Your task to perform on an android device: What's on my calendar tomorrow? Image 0: 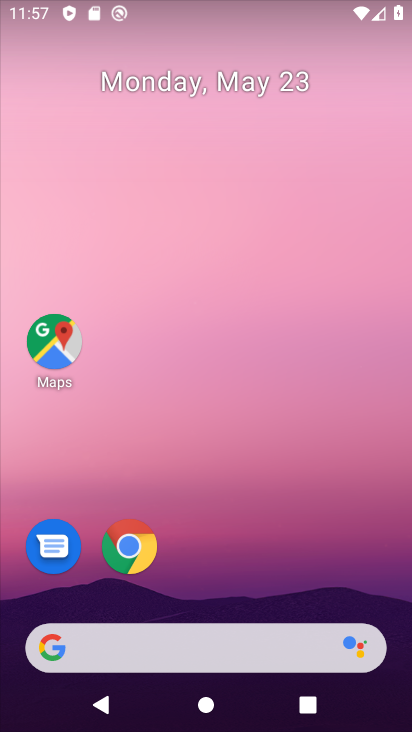
Step 0: drag from (229, 700) to (206, 48)
Your task to perform on an android device: What's on my calendar tomorrow? Image 1: 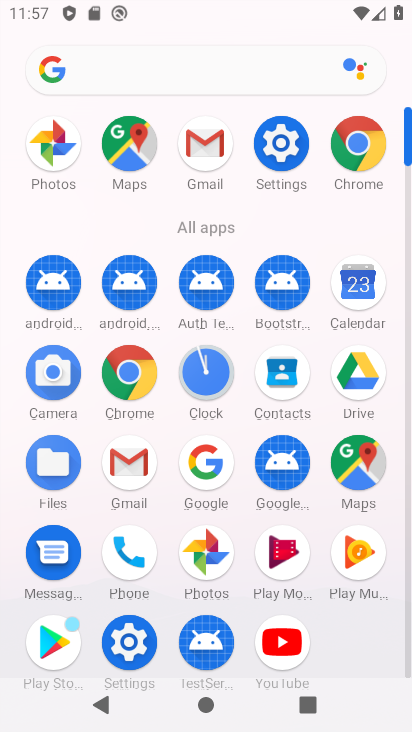
Step 1: click (375, 287)
Your task to perform on an android device: What's on my calendar tomorrow? Image 2: 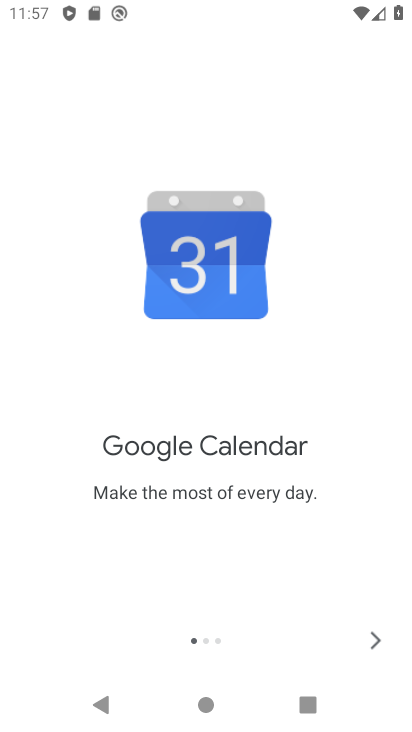
Step 2: click (377, 653)
Your task to perform on an android device: What's on my calendar tomorrow? Image 3: 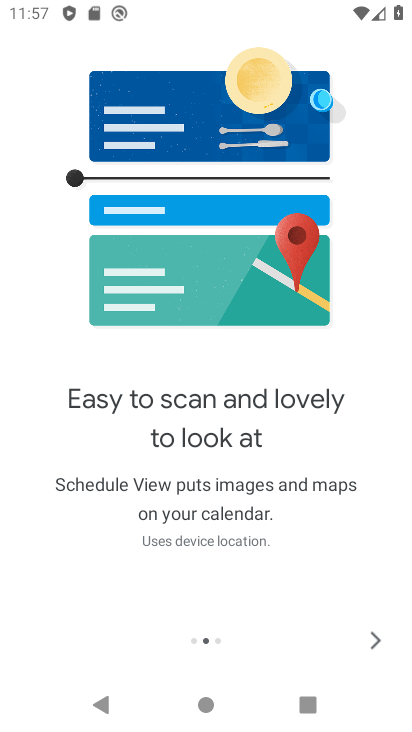
Step 3: click (377, 653)
Your task to perform on an android device: What's on my calendar tomorrow? Image 4: 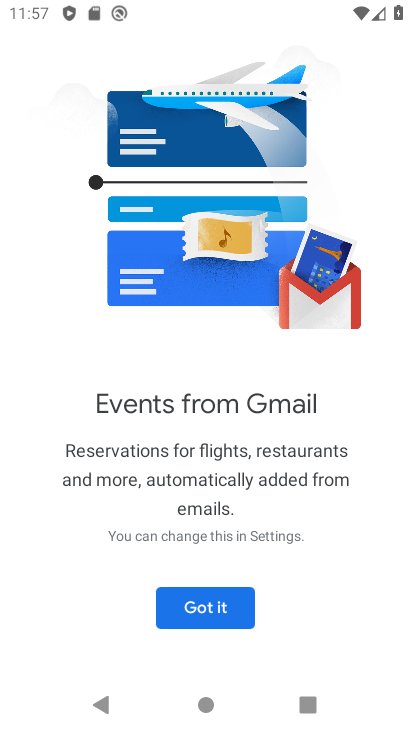
Step 4: click (240, 608)
Your task to perform on an android device: What's on my calendar tomorrow? Image 5: 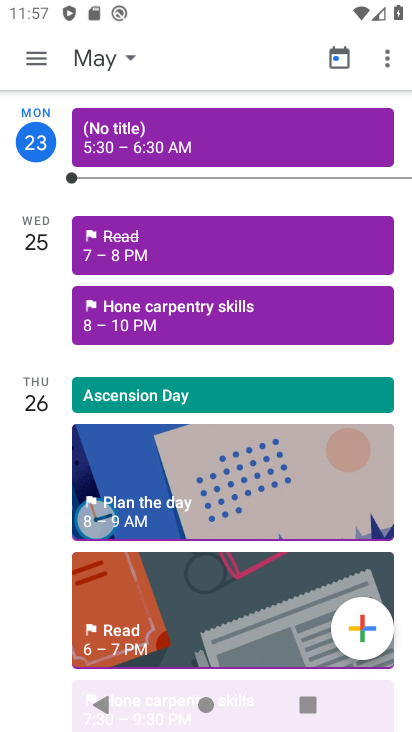
Step 5: click (135, 51)
Your task to perform on an android device: What's on my calendar tomorrow? Image 6: 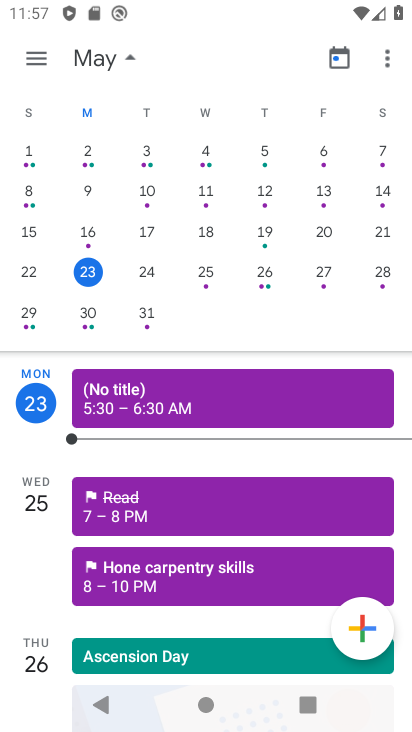
Step 6: click (210, 270)
Your task to perform on an android device: What's on my calendar tomorrow? Image 7: 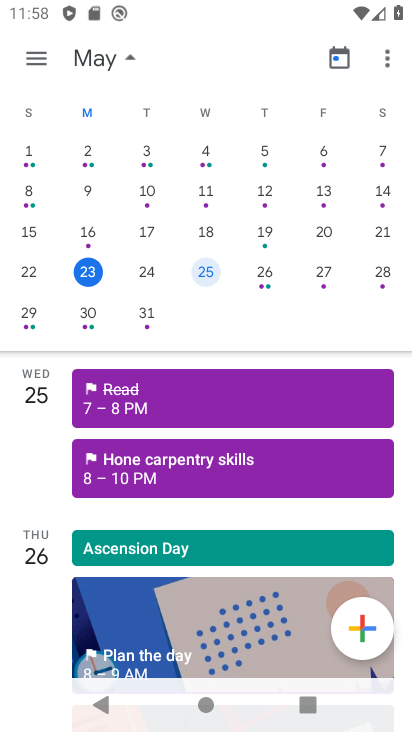
Step 7: task complete